Your task to perform on an android device: change keyboard looks Image 0: 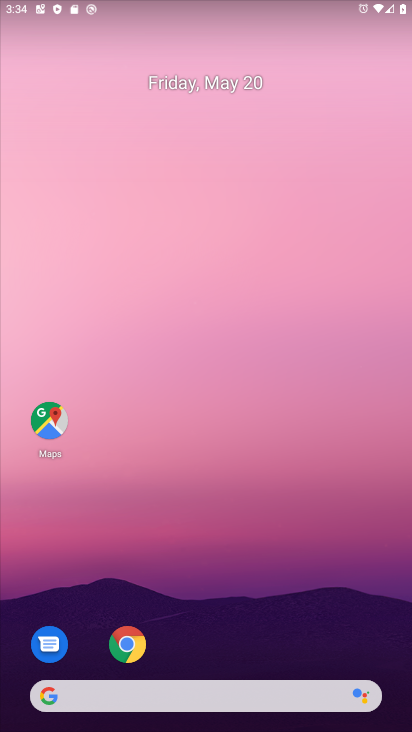
Step 0: drag from (301, 669) to (152, 136)
Your task to perform on an android device: change keyboard looks Image 1: 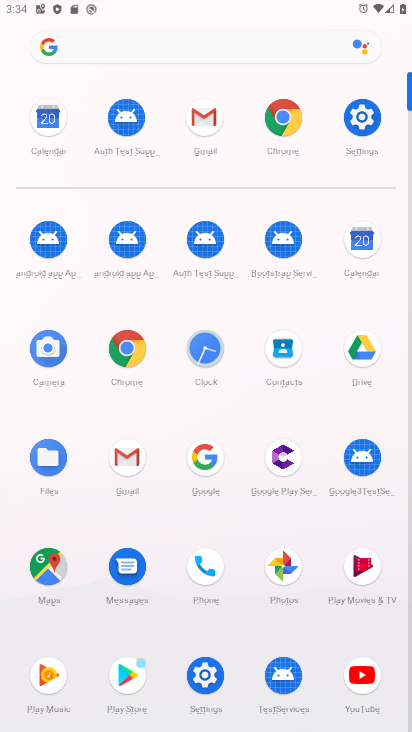
Step 1: click (372, 106)
Your task to perform on an android device: change keyboard looks Image 2: 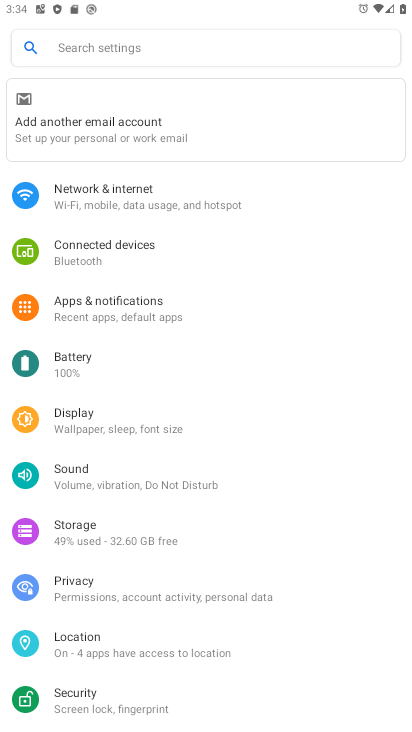
Step 2: drag from (177, 627) to (200, 258)
Your task to perform on an android device: change keyboard looks Image 3: 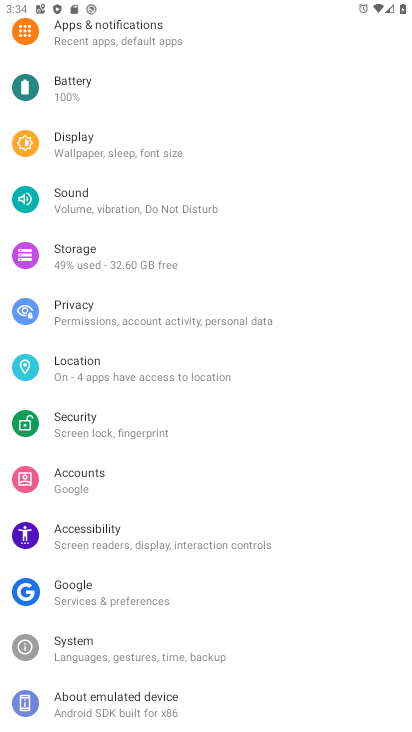
Step 3: click (170, 648)
Your task to perform on an android device: change keyboard looks Image 4: 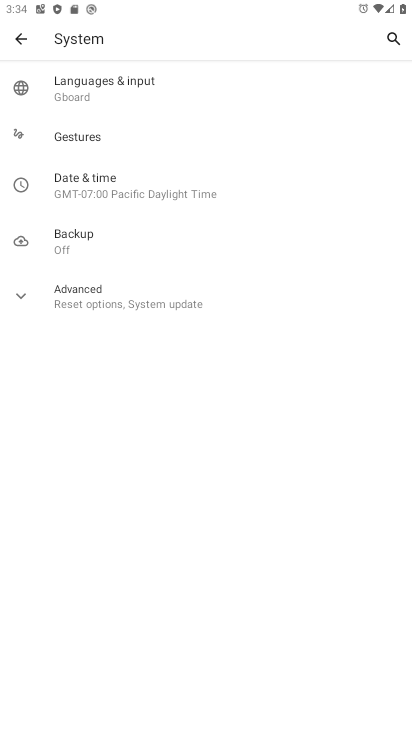
Step 4: click (191, 82)
Your task to perform on an android device: change keyboard looks Image 5: 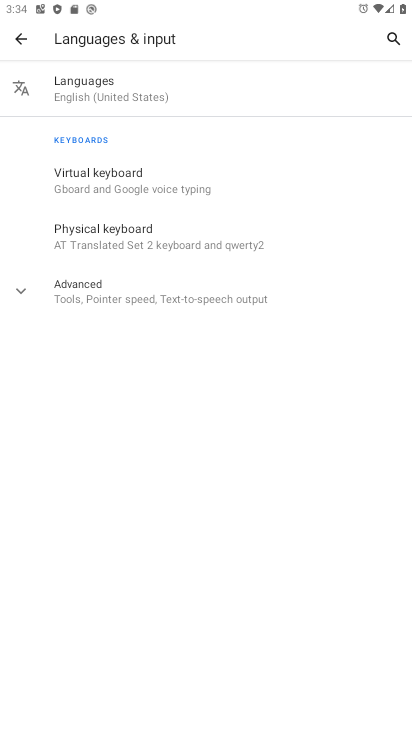
Step 5: click (179, 179)
Your task to perform on an android device: change keyboard looks Image 6: 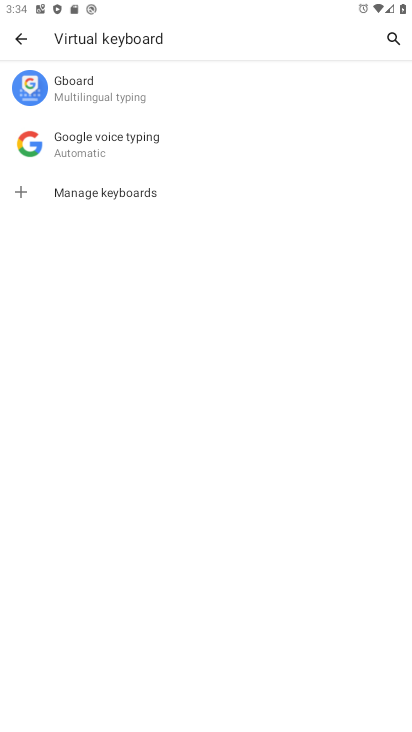
Step 6: click (156, 107)
Your task to perform on an android device: change keyboard looks Image 7: 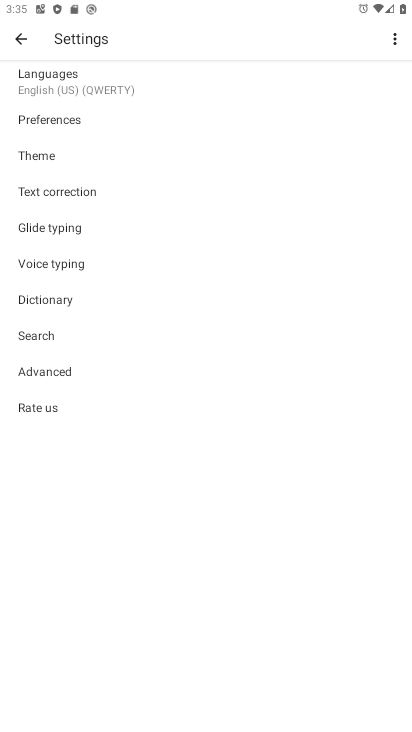
Step 7: click (158, 165)
Your task to perform on an android device: change keyboard looks Image 8: 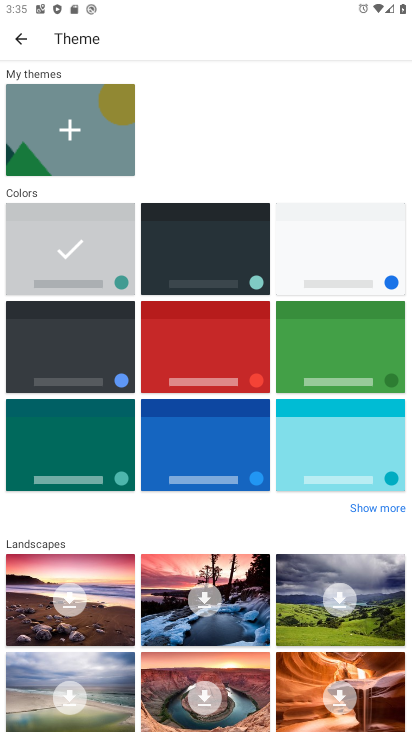
Step 8: click (182, 231)
Your task to perform on an android device: change keyboard looks Image 9: 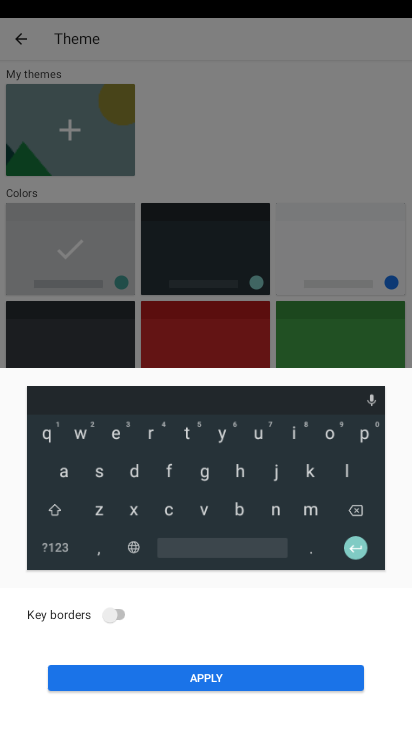
Step 9: click (222, 687)
Your task to perform on an android device: change keyboard looks Image 10: 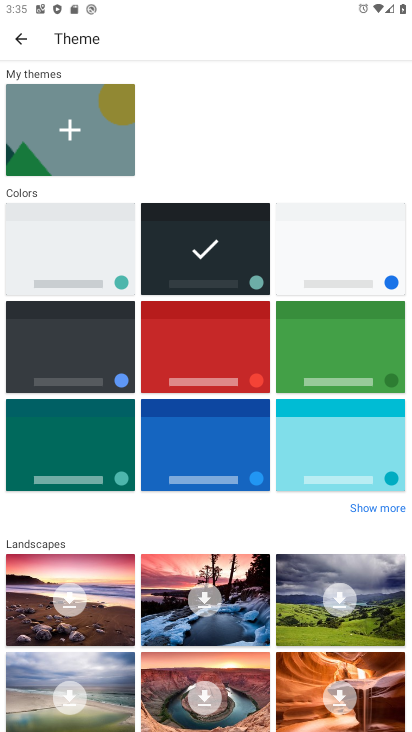
Step 10: task complete